Your task to perform on an android device: Open Android settings Image 0: 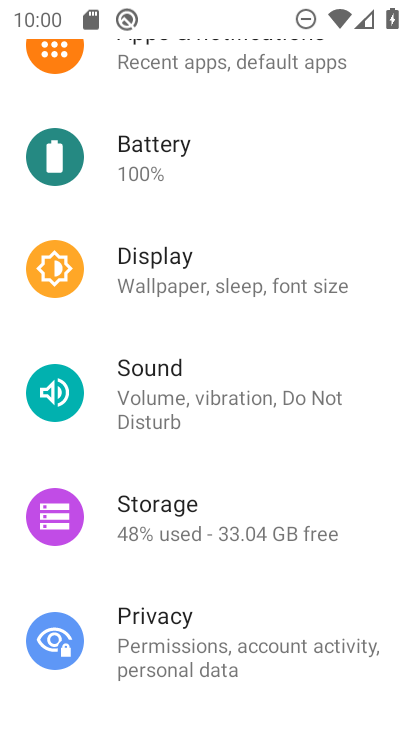
Step 0: drag from (242, 698) to (281, 119)
Your task to perform on an android device: Open Android settings Image 1: 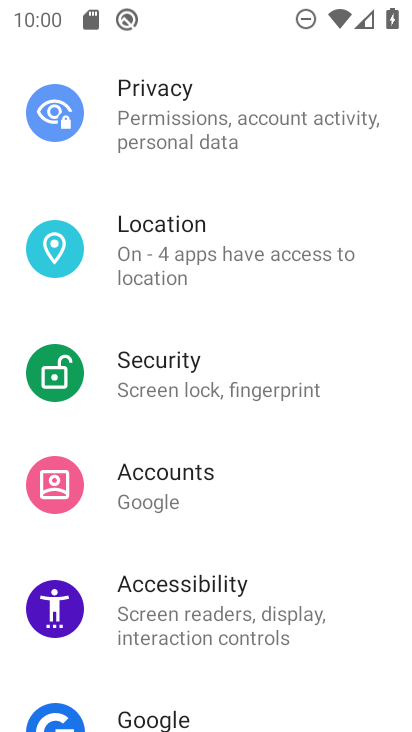
Step 1: drag from (246, 621) to (244, 81)
Your task to perform on an android device: Open Android settings Image 2: 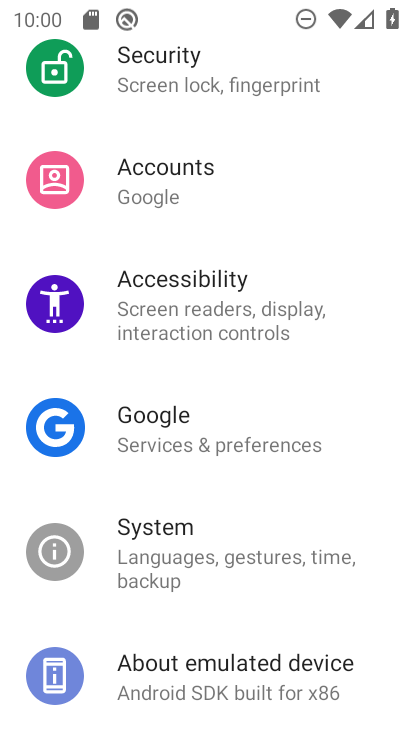
Step 2: click (156, 661)
Your task to perform on an android device: Open Android settings Image 3: 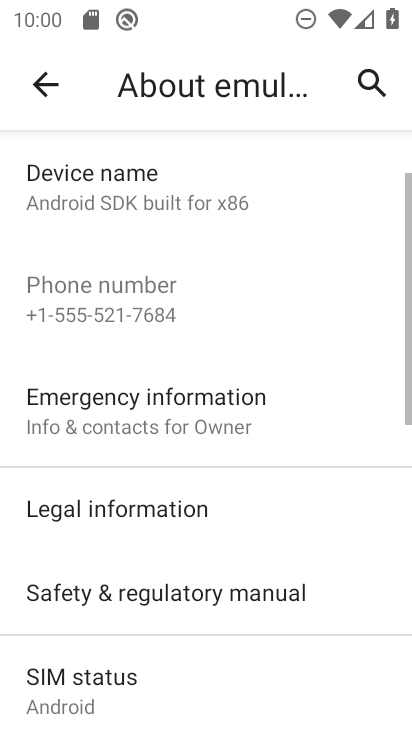
Step 3: drag from (156, 661) to (187, 231)
Your task to perform on an android device: Open Android settings Image 4: 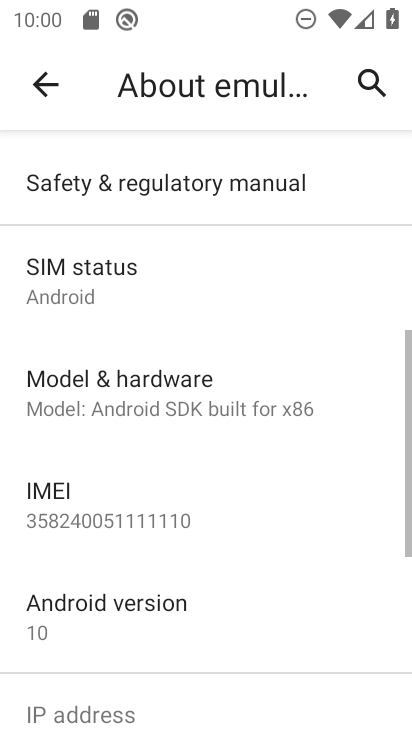
Step 4: click (119, 632)
Your task to perform on an android device: Open Android settings Image 5: 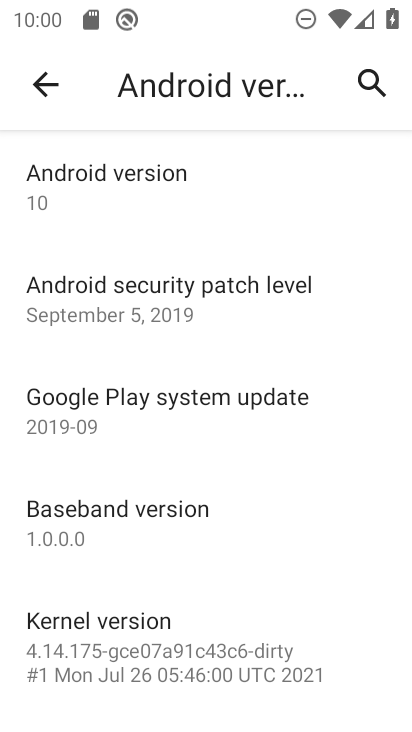
Step 5: task complete